Your task to perform on an android device: Go to accessibility settings Image 0: 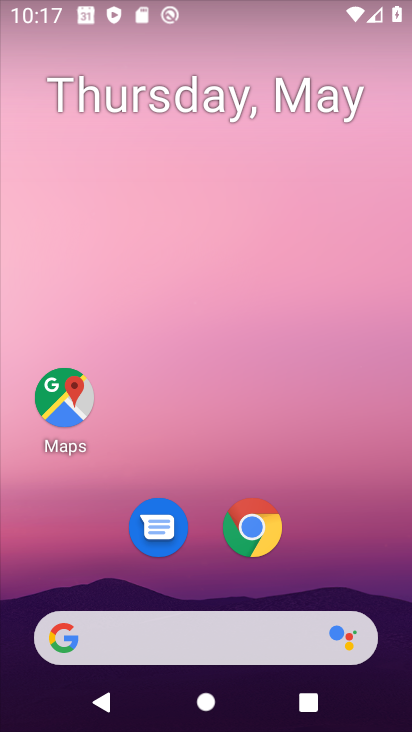
Step 0: drag from (223, 717) to (216, 212)
Your task to perform on an android device: Go to accessibility settings Image 1: 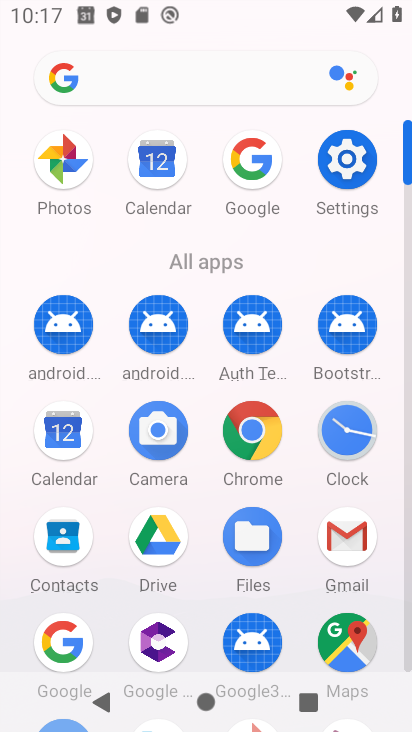
Step 1: click (341, 149)
Your task to perform on an android device: Go to accessibility settings Image 2: 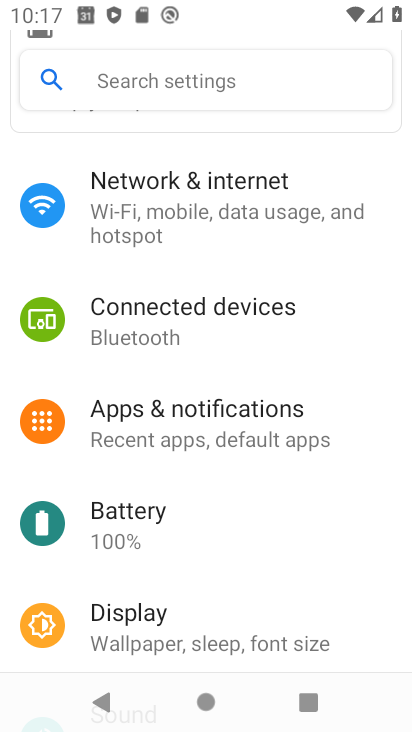
Step 2: drag from (219, 606) to (213, 170)
Your task to perform on an android device: Go to accessibility settings Image 3: 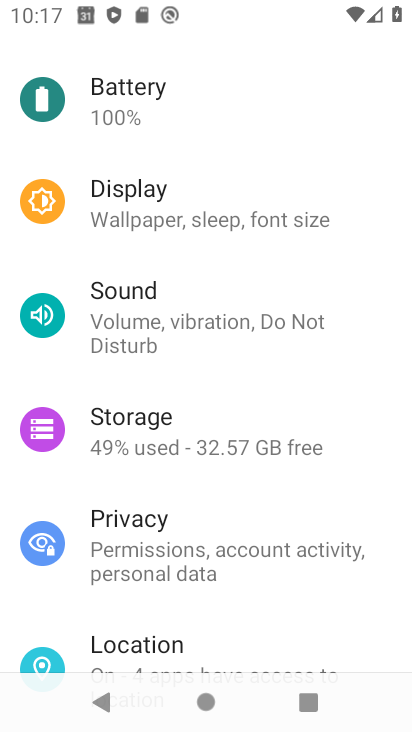
Step 3: drag from (236, 622) to (249, 153)
Your task to perform on an android device: Go to accessibility settings Image 4: 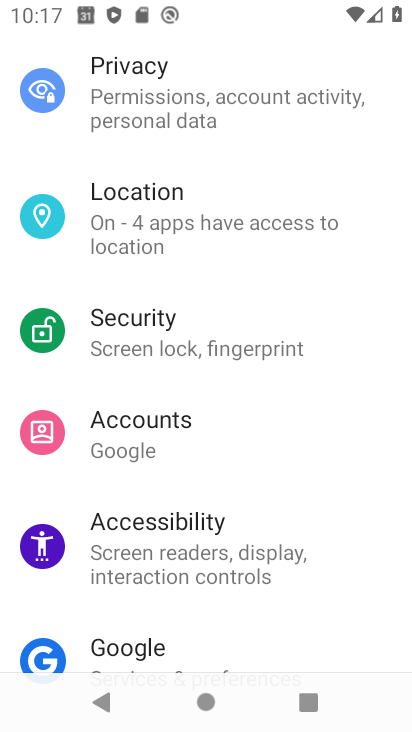
Step 4: click (161, 552)
Your task to perform on an android device: Go to accessibility settings Image 5: 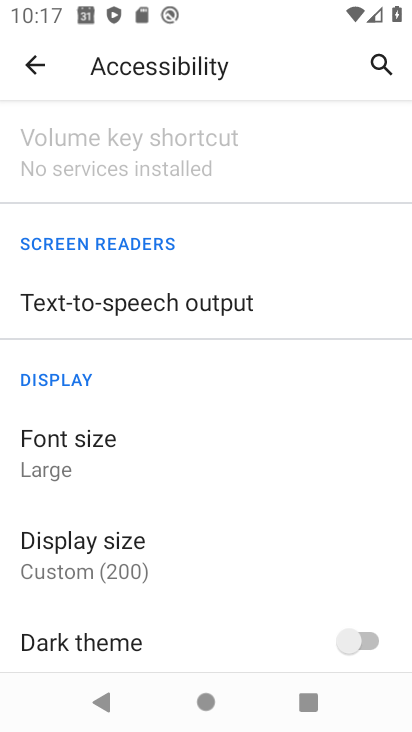
Step 5: task complete